Your task to perform on an android device: Go to eBay Image 0: 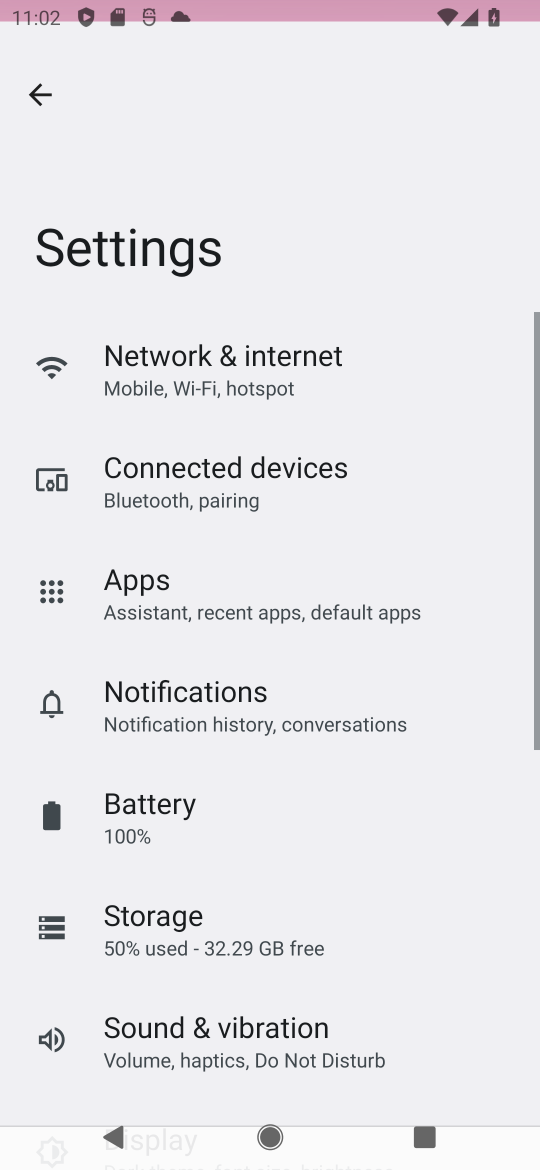
Step 0: press home button
Your task to perform on an android device: Go to eBay Image 1: 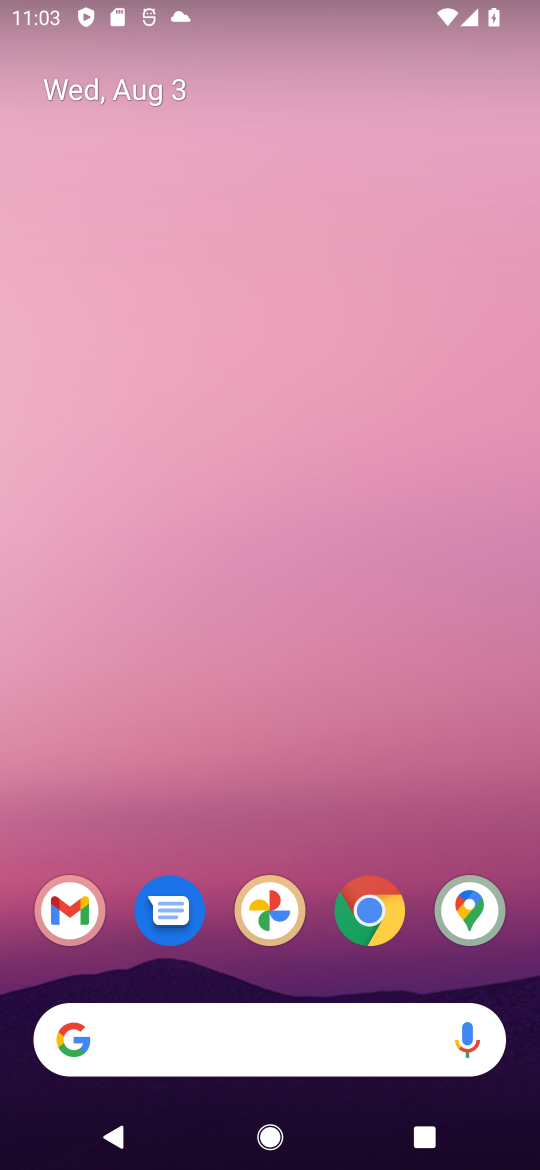
Step 1: press home button
Your task to perform on an android device: Go to eBay Image 2: 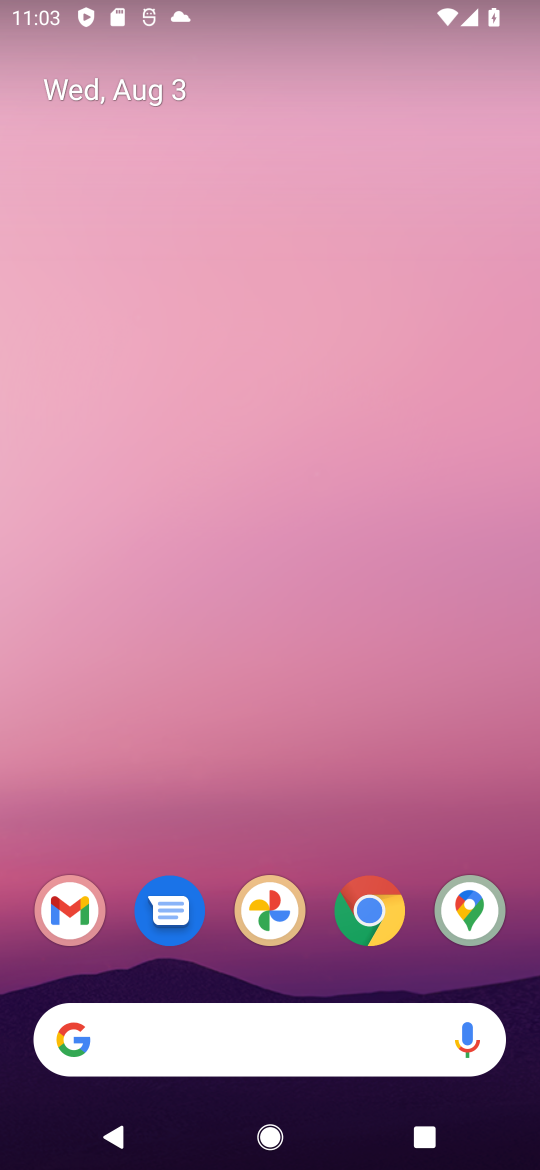
Step 2: click (365, 905)
Your task to perform on an android device: Go to eBay Image 3: 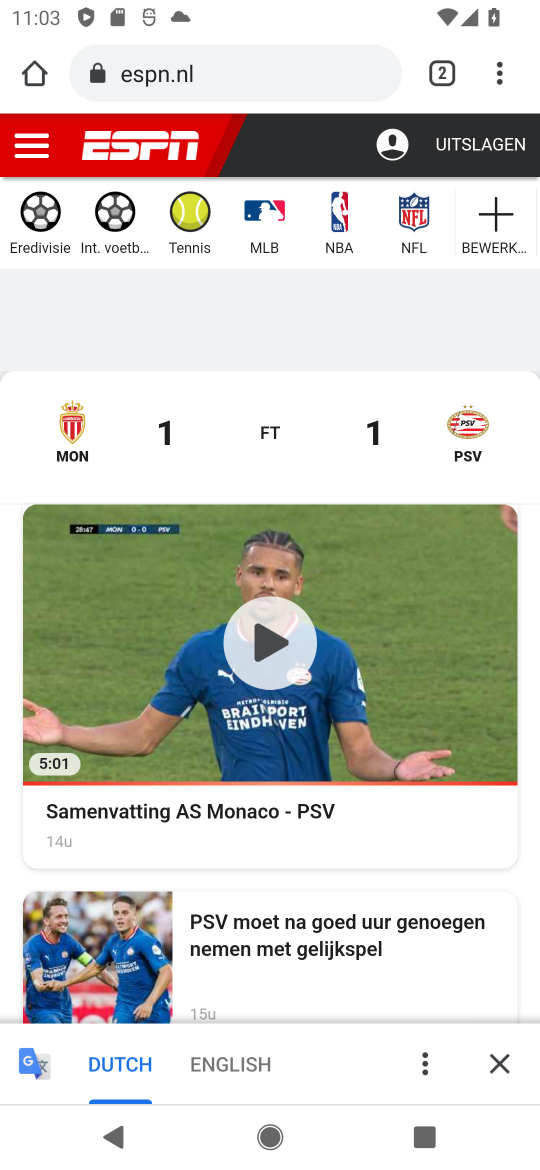
Step 3: click (438, 69)
Your task to perform on an android device: Go to eBay Image 4: 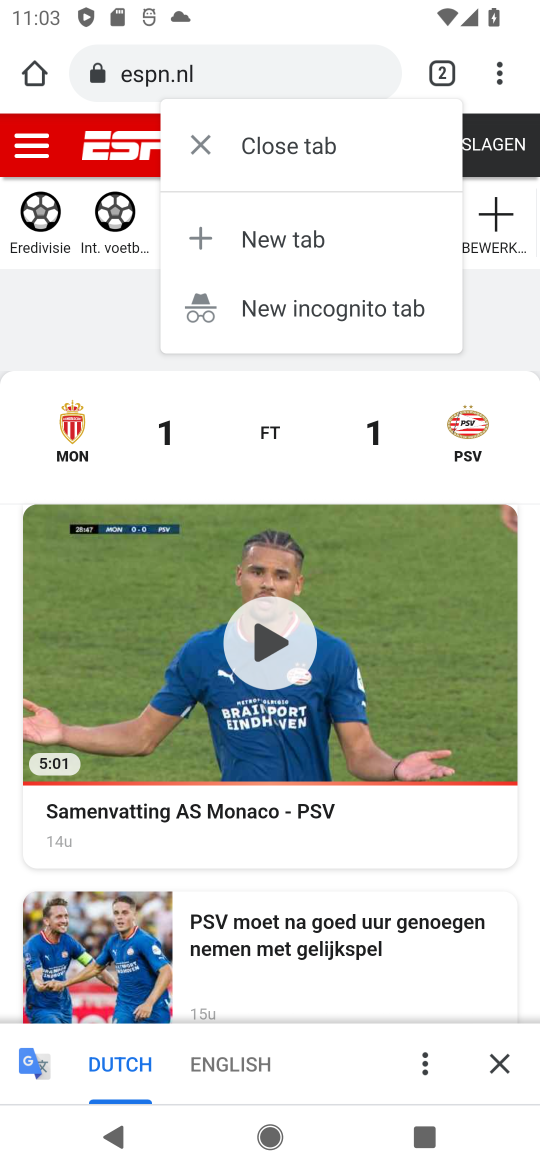
Step 4: click (267, 244)
Your task to perform on an android device: Go to eBay Image 5: 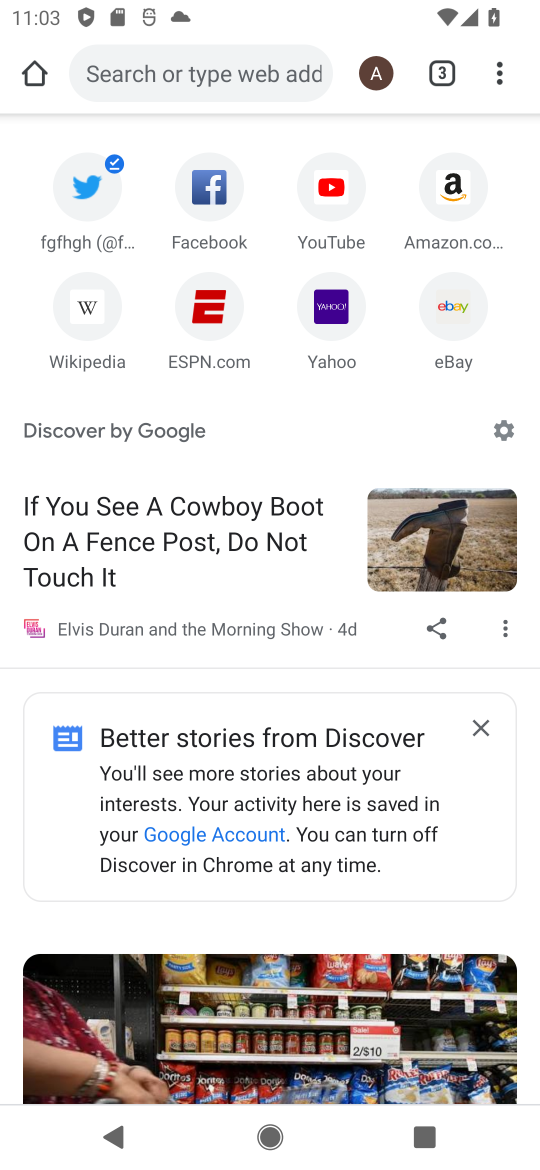
Step 5: click (468, 305)
Your task to perform on an android device: Go to eBay Image 6: 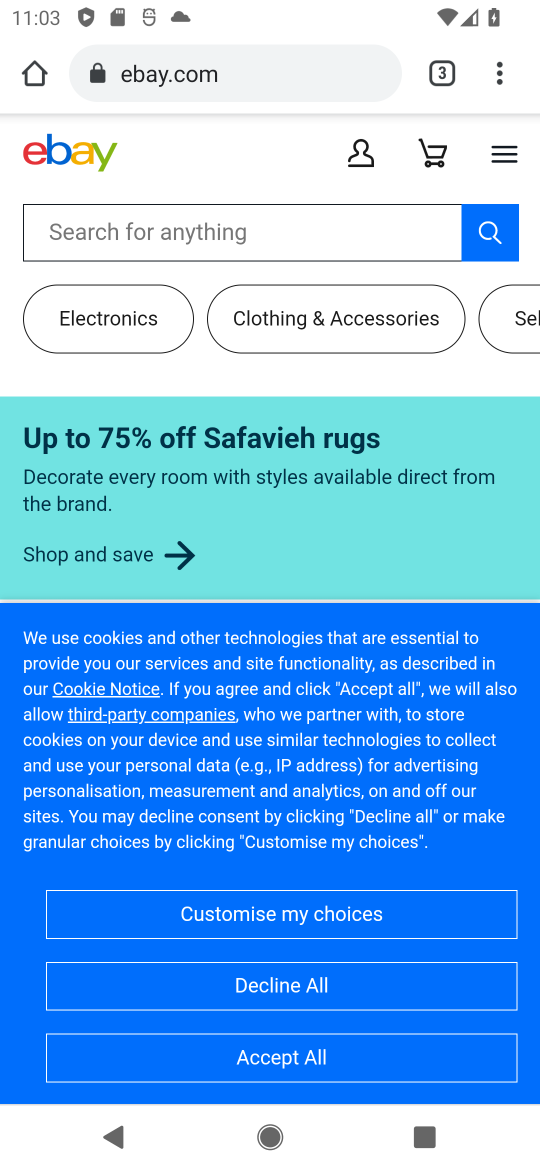
Step 6: click (278, 1050)
Your task to perform on an android device: Go to eBay Image 7: 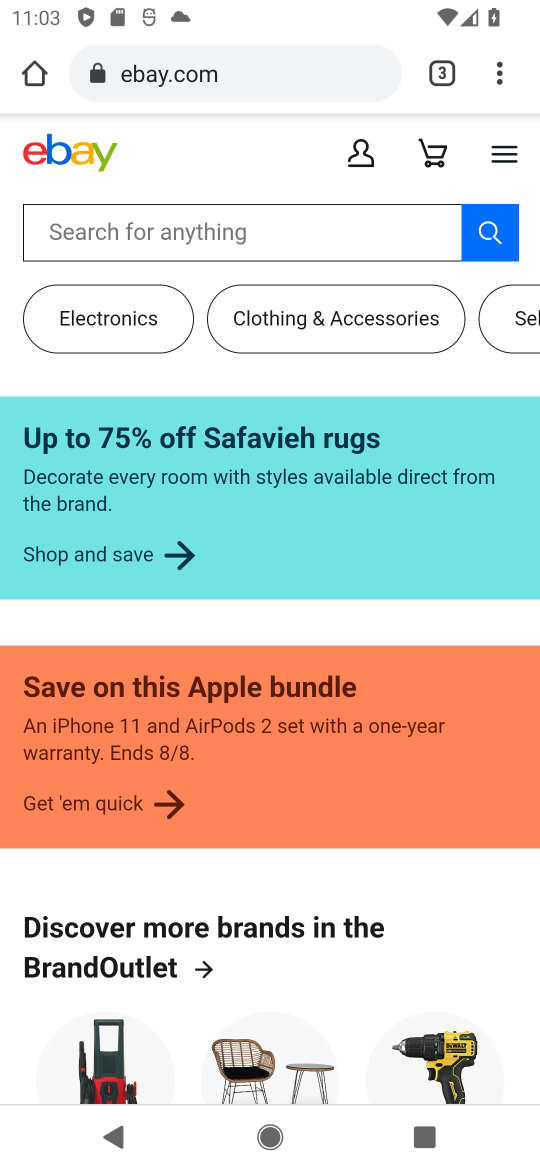
Step 7: task complete